Your task to perform on an android device: turn off smart reply in the gmail app Image 0: 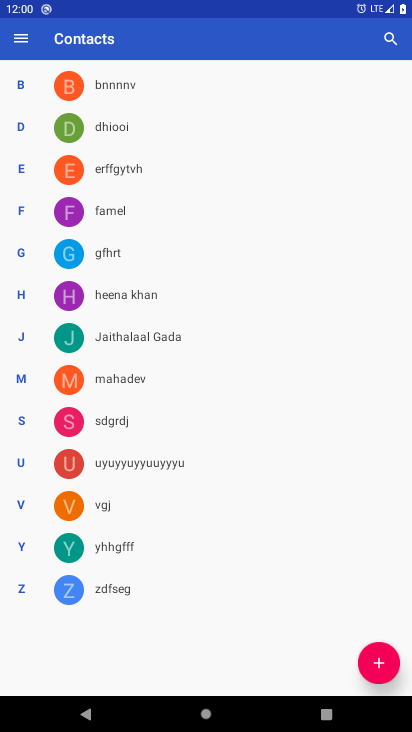
Step 0: press home button
Your task to perform on an android device: turn off smart reply in the gmail app Image 1: 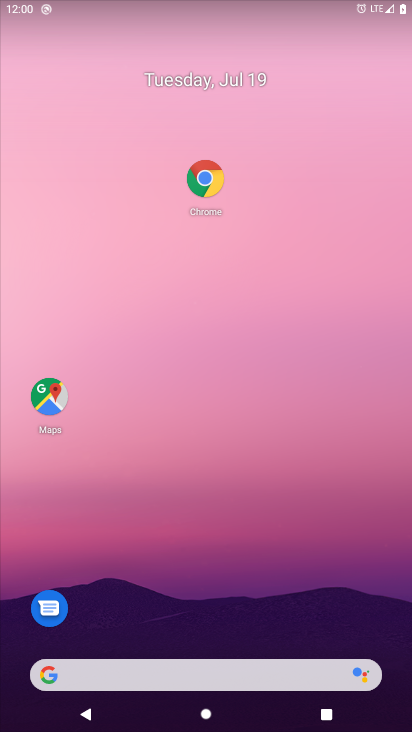
Step 1: drag from (32, 675) to (352, 7)
Your task to perform on an android device: turn off smart reply in the gmail app Image 2: 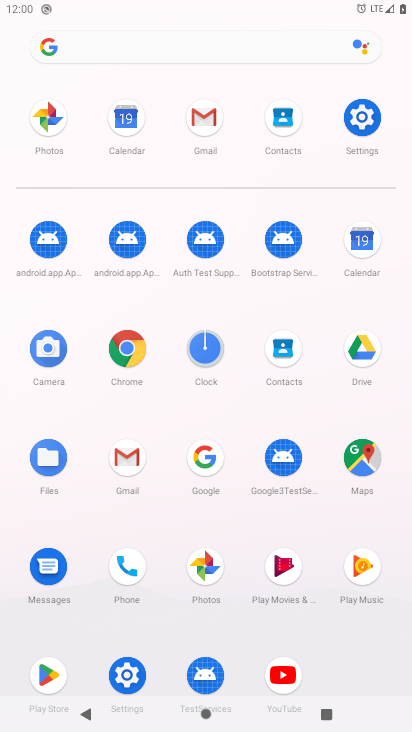
Step 2: click (123, 461)
Your task to perform on an android device: turn off smart reply in the gmail app Image 3: 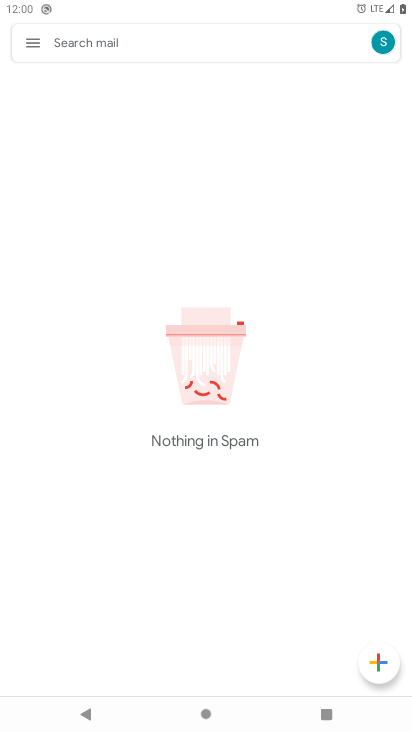
Step 3: click (38, 42)
Your task to perform on an android device: turn off smart reply in the gmail app Image 4: 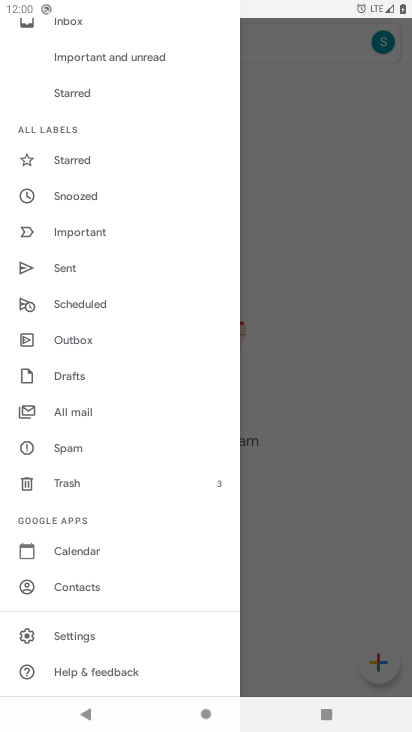
Step 4: click (70, 634)
Your task to perform on an android device: turn off smart reply in the gmail app Image 5: 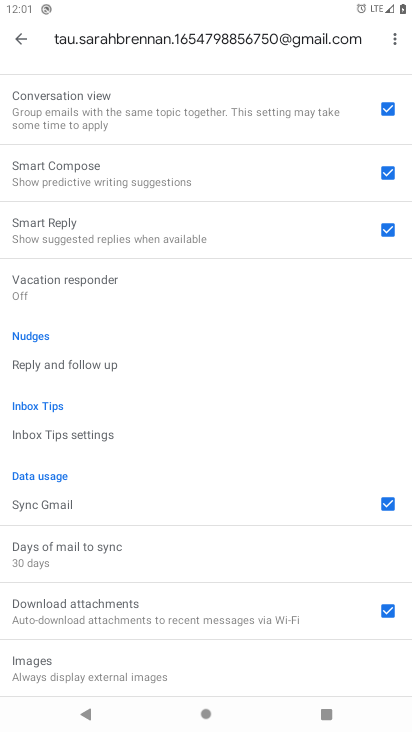
Step 5: drag from (200, 578) to (236, 262)
Your task to perform on an android device: turn off smart reply in the gmail app Image 6: 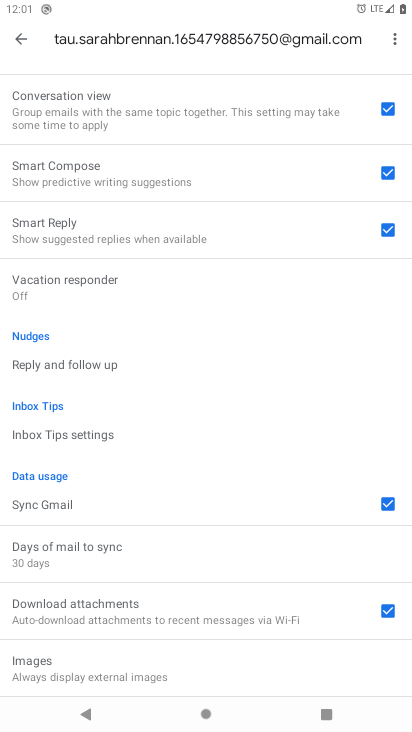
Step 6: drag from (180, 587) to (310, 36)
Your task to perform on an android device: turn off smart reply in the gmail app Image 7: 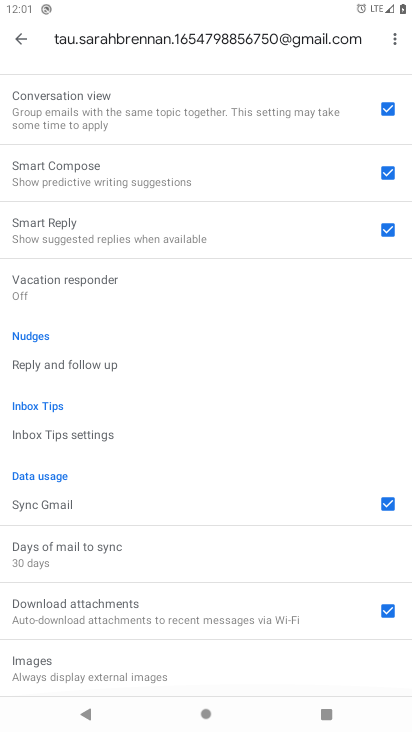
Step 7: drag from (221, 467) to (180, 721)
Your task to perform on an android device: turn off smart reply in the gmail app Image 8: 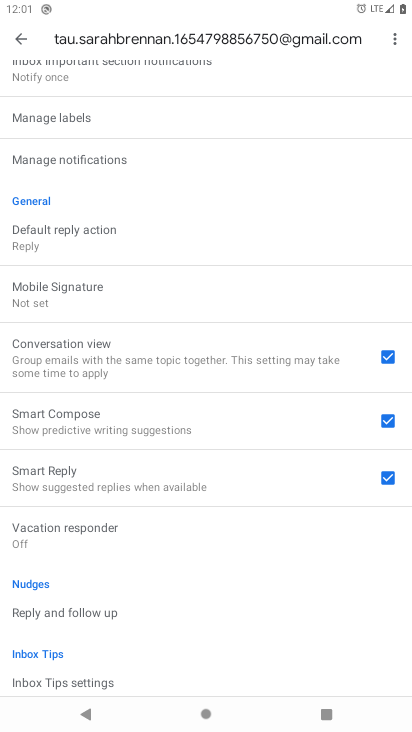
Step 8: drag from (185, 175) to (206, 507)
Your task to perform on an android device: turn off smart reply in the gmail app Image 9: 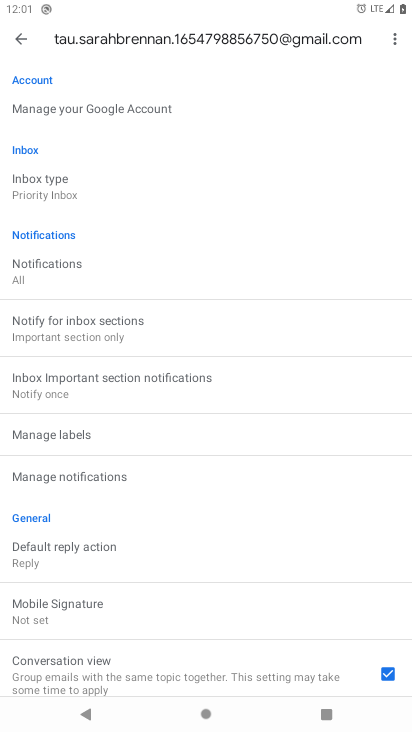
Step 9: drag from (154, 629) to (262, 299)
Your task to perform on an android device: turn off smart reply in the gmail app Image 10: 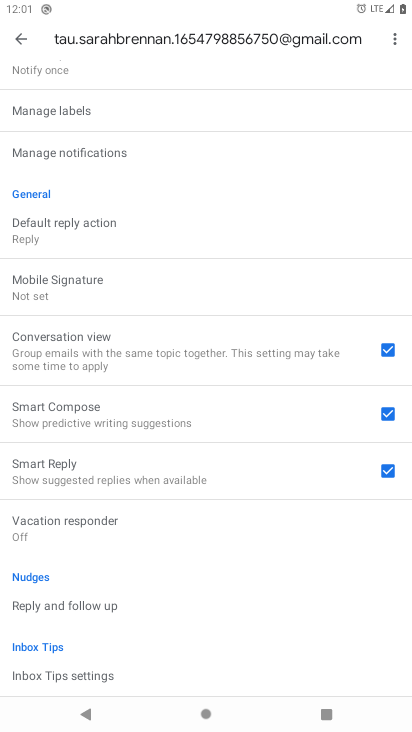
Step 10: drag from (198, 612) to (255, 298)
Your task to perform on an android device: turn off smart reply in the gmail app Image 11: 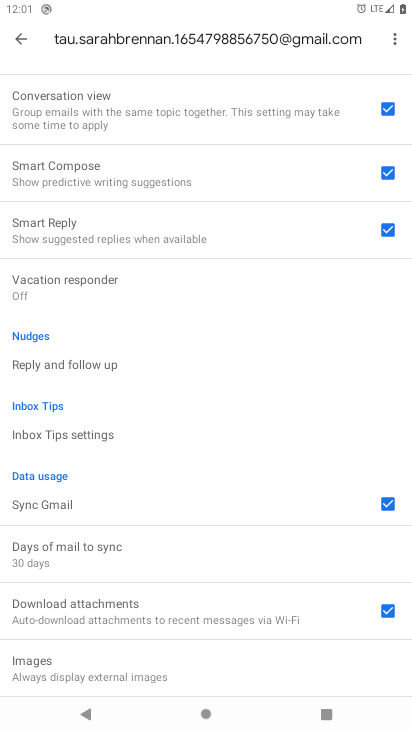
Step 11: click (398, 234)
Your task to perform on an android device: turn off smart reply in the gmail app Image 12: 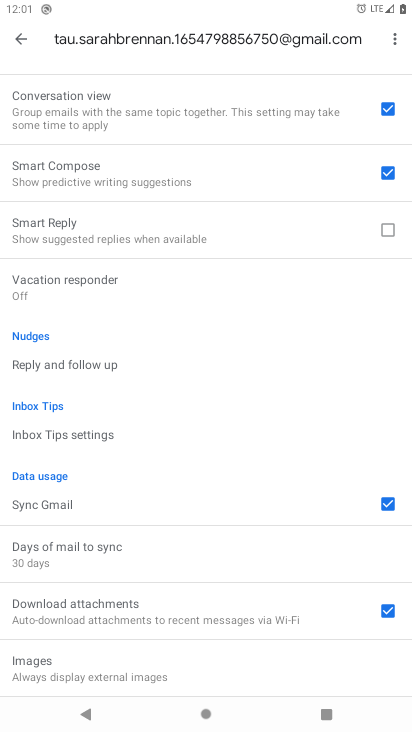
Step 12: task complete